Your task to perform on an android device: stop showing notifications on the lock screen Image 0: 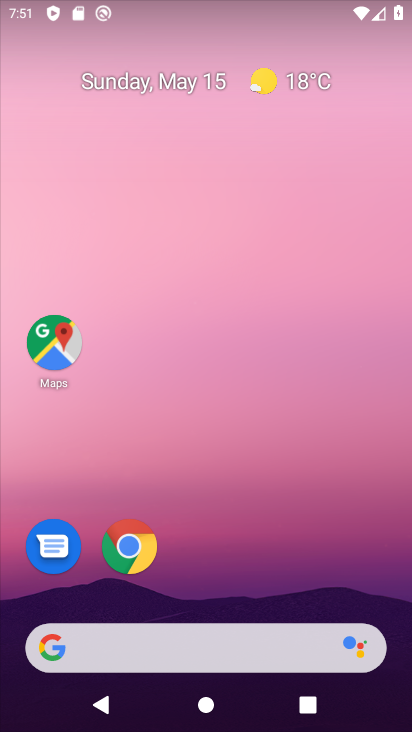
Step 0: drag from (217, 571) to (264, 177)
Your task to perform on an android device: stop showing notifications on the lock screen Image 1: 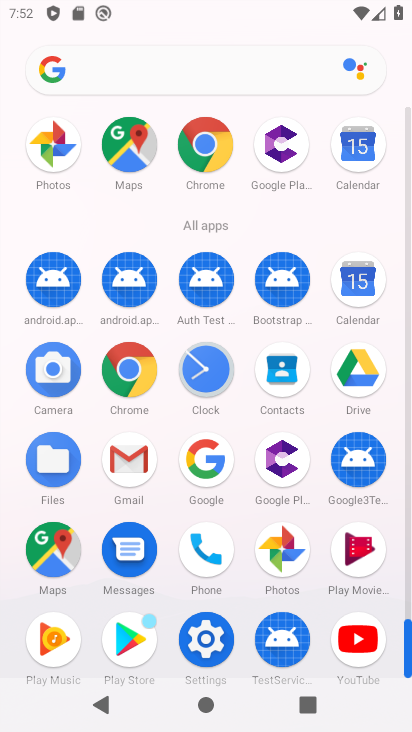
Step 1: click (214, 643)
Your task to perform on an android device: stop showing notifications on the lock screen Image 2: 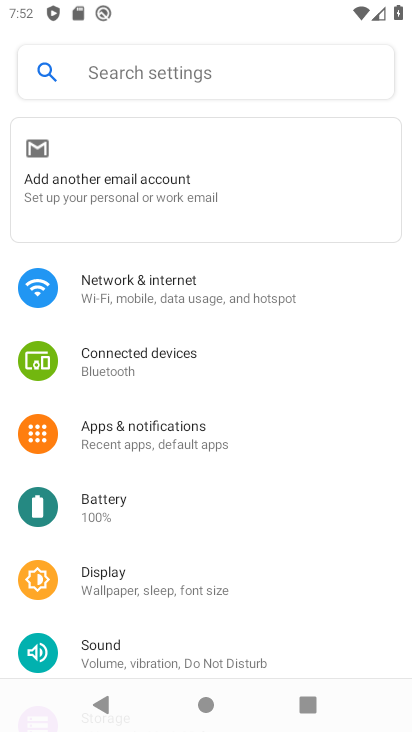
Step 2: drag from (173, 576) to (242, 332)
Your task to perform on an android device: stop showing notifications on the lock screen Image 3: 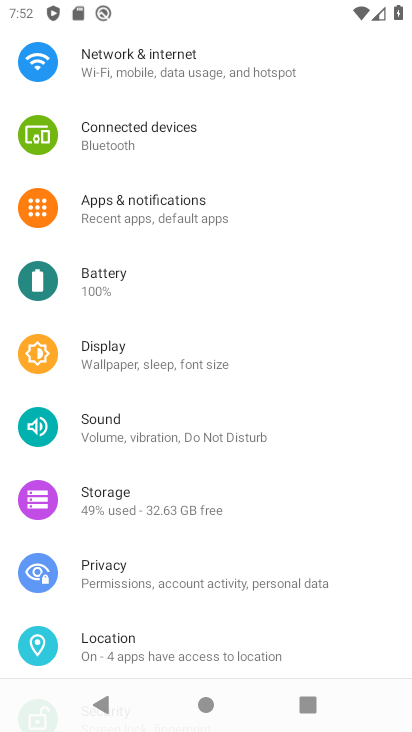
Step 3: click (167, 70)
Your task to perform on an android device: stop showing notifications on the lock screen Image 4: 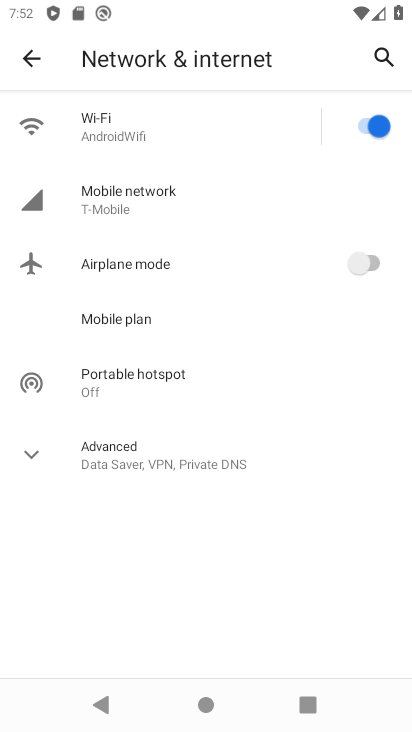
Step 4: click (31, 45)
Your task to perform on an android device: stop showing notifications on the lock screen Image 5: 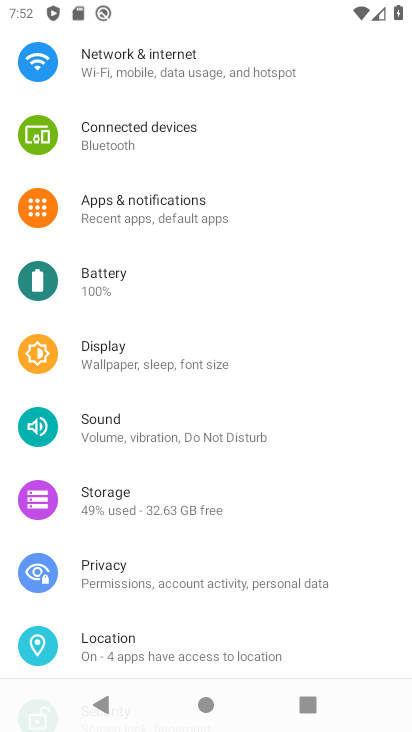
Step 5: click (148, 206)
Your task to perform on an android device: stop showing notifications on the lock screen Image 6: 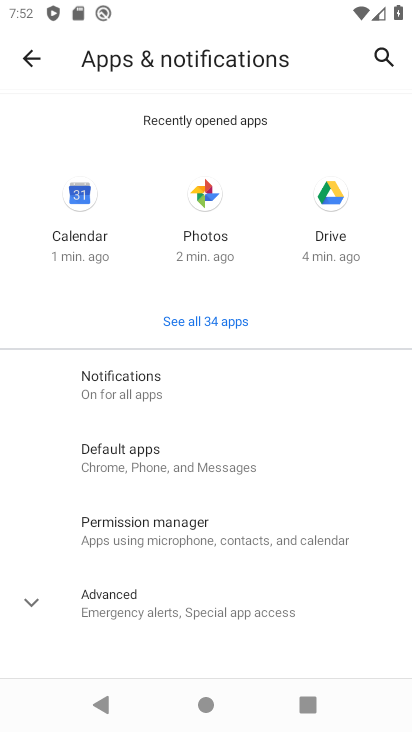
Step 6: click (155, 383)
Your task to perform on an android device: stop showing notifications on the lock screen Image 7: 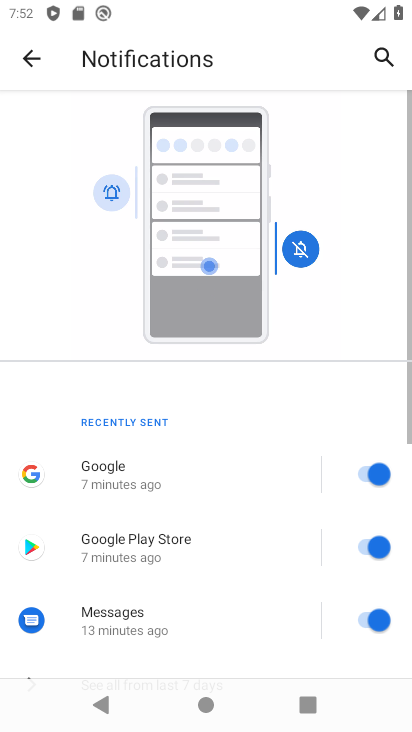
Step 7: drag from (206, 567) to (277, 106)
Your task to perform on an android device: stop showing notifications on the lock screen Image 8: 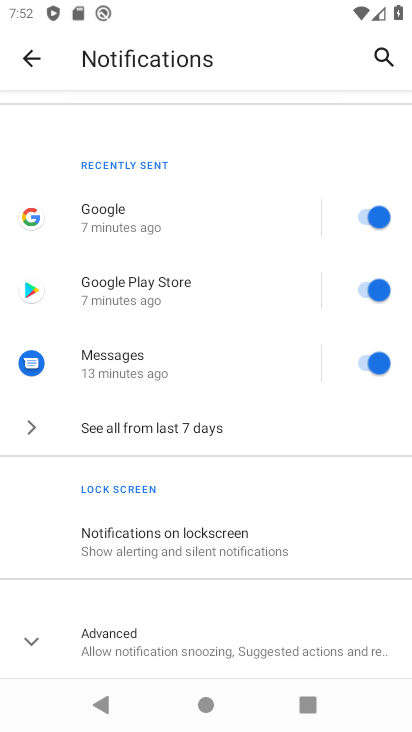
Step 8: click (145, 548)
Your task to perform on an android device: stop showing notifications on the lock screen Image 9: 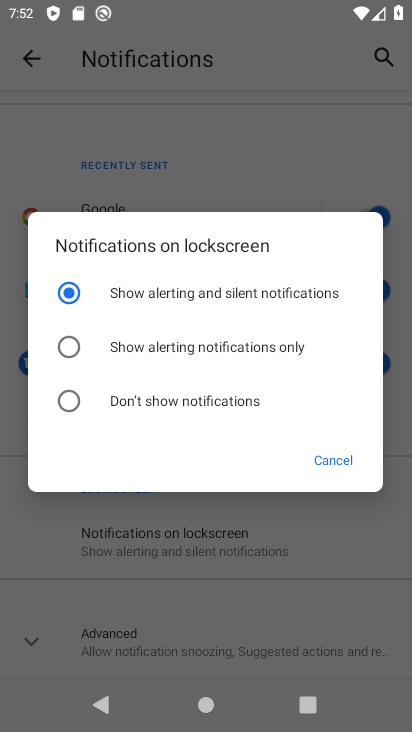
Step 9: click (104, 333)
Your task to perform on an android device: stop showing notifications on the lock screen Image 10: 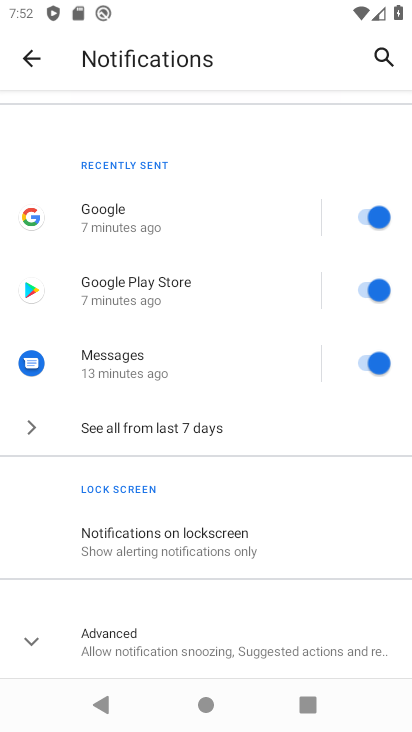
Step 10: task complete